Your task to perform on an android device: change the clock display to show seconds Image 0: 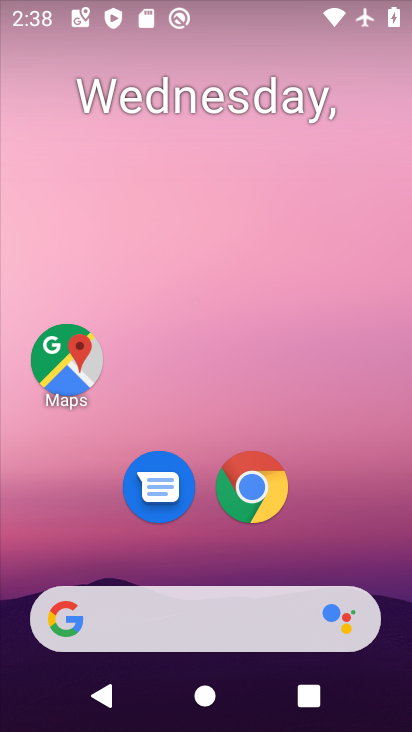
Step 0: drag from (358, 543) to (402, 232)
Your task to perform on an android device: change the clock display to show seconds Image 1: 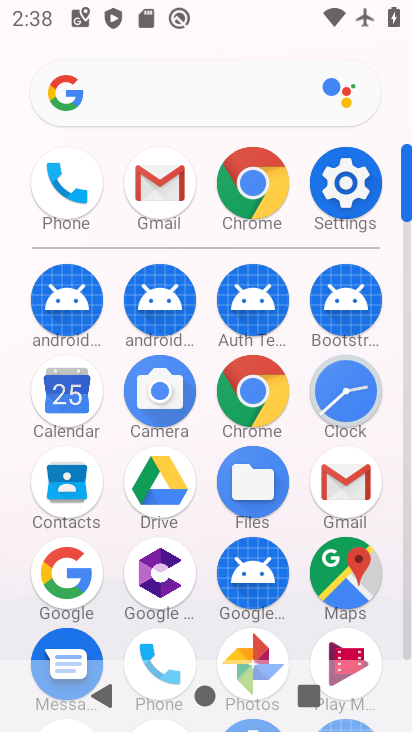
Step 1: click (329, 399)
Your task to perform on an android device: change the clock display to show seconds Image 2: 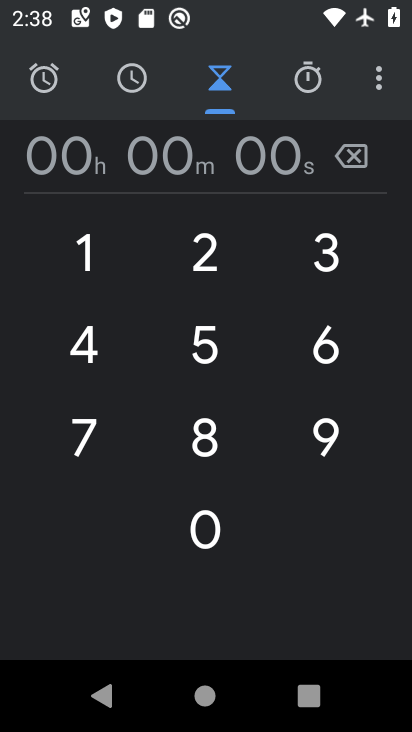
Step 2: click (366, 80)
Your task to perform on an android device: change the clock display to show seconds Image 3: 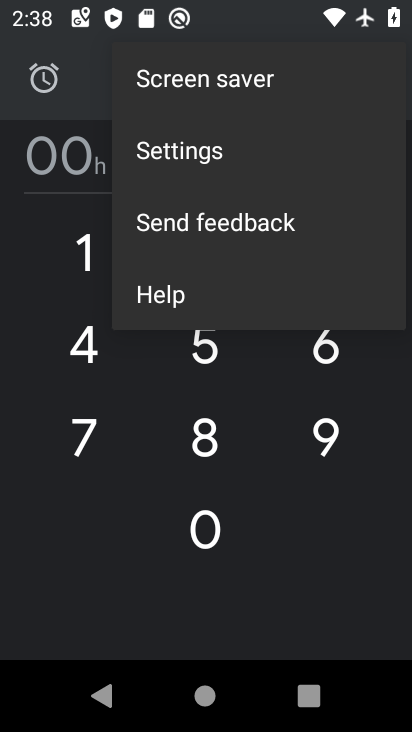
Step 3: click (154, 164)
Your task to perform on an android device: change the clock display to show seconds Image 4: 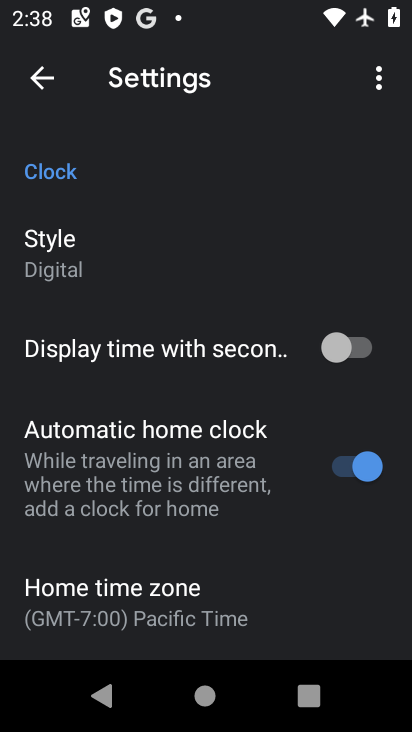
Step 4: click (353, 360)
Your task to perform on an android device: change the clock display to show seconds Image 5: 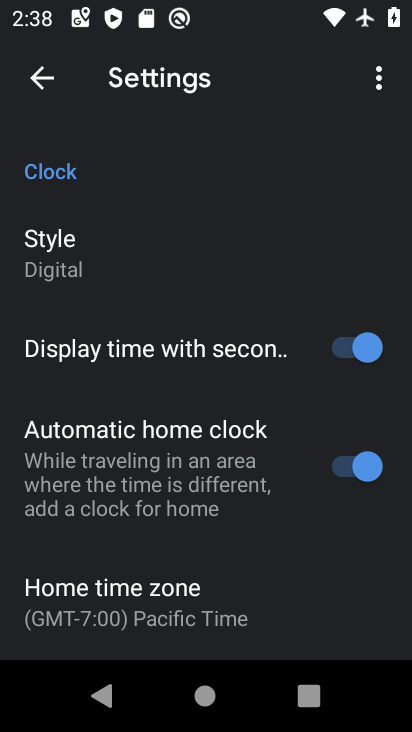
Step 5: task complete